Your task to perform on an android device: Open Reddit.com Image 0: 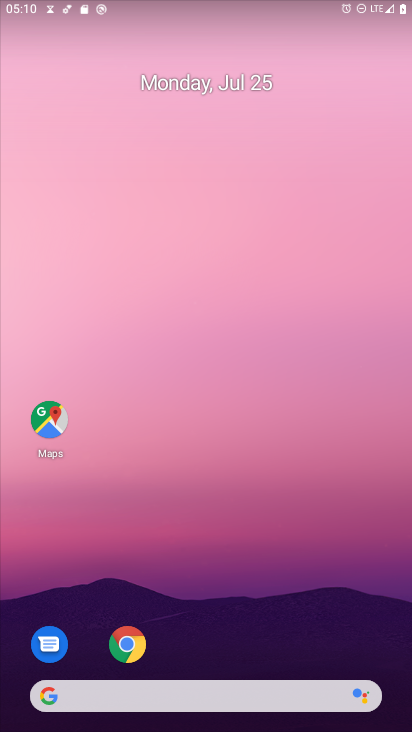
Step 0: press home button
Your task to perform on an android device: Open Reddit.com Image 1: 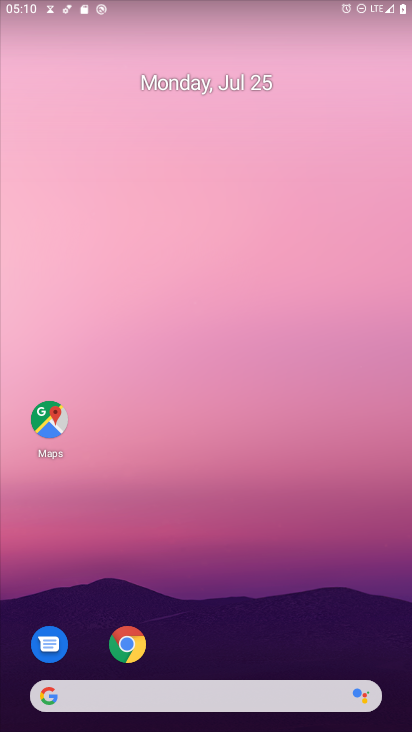
Step 1: click (44, 691)
Your task to perform on an android device: Open Reddit.com Image 2: 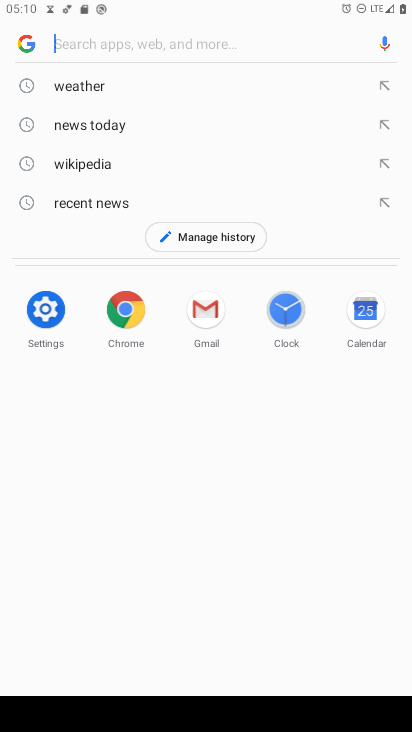
Step 2: type "Reddit.com"
Your task to perform on an android device: Open Reddit.com Image 3: 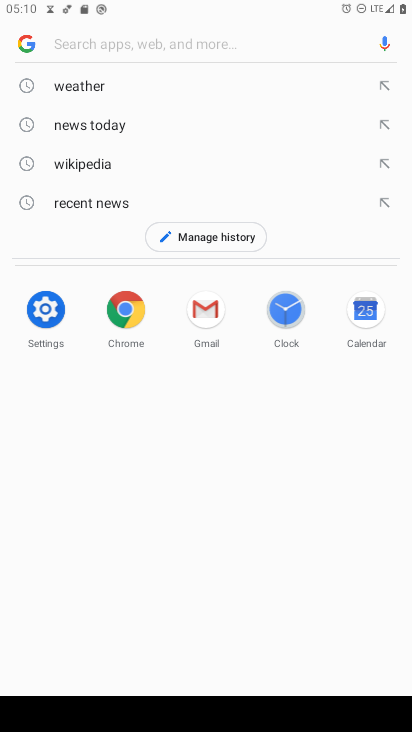
Step 3: click (90, 43)
Your task to perform on an android device: Open Reddit.com Image 4: 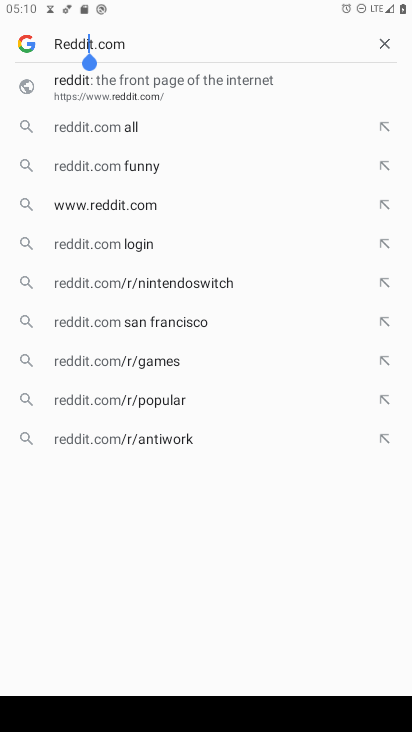
Step 4: click (188, 84)
Your task to perform on an android device: Open Reddit.com Image 5: 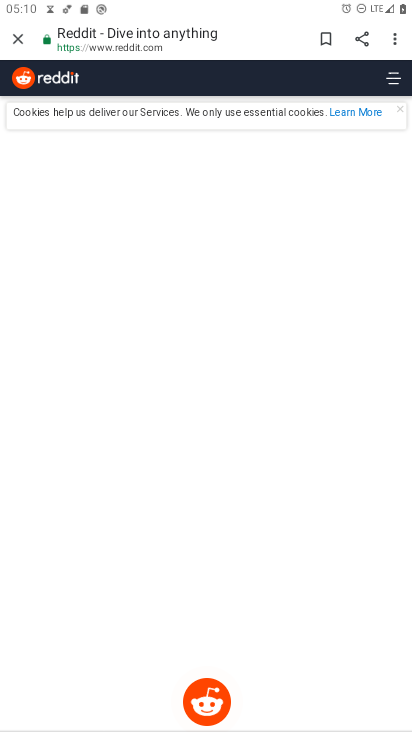
Step 5: task complete